Your task to perform on an android device: Search for "dell xps" on target, select the first entry, and add it to the cart. Image 0: 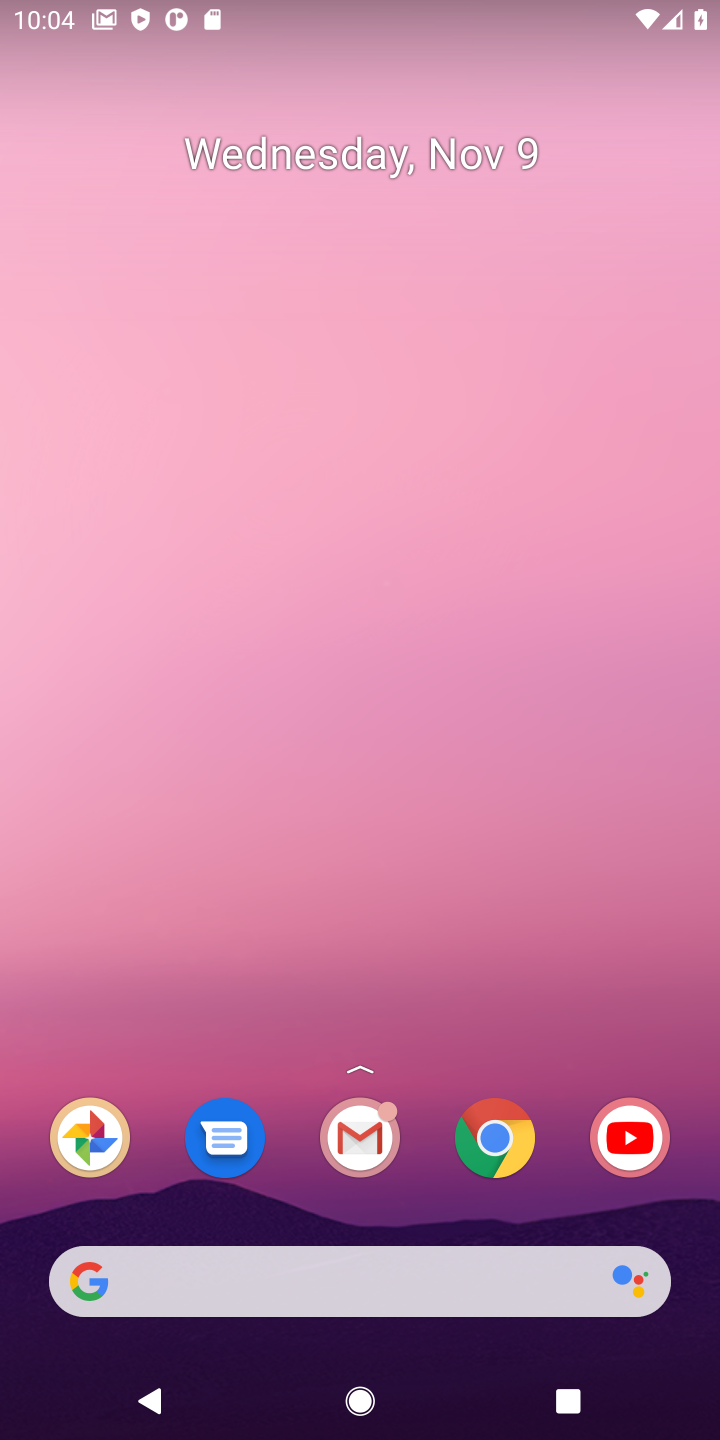
Step 0: press home button
Your task to perform on an android device: Search for "dell xps" on target, select the first entry, and add it to the cart. Image 1: 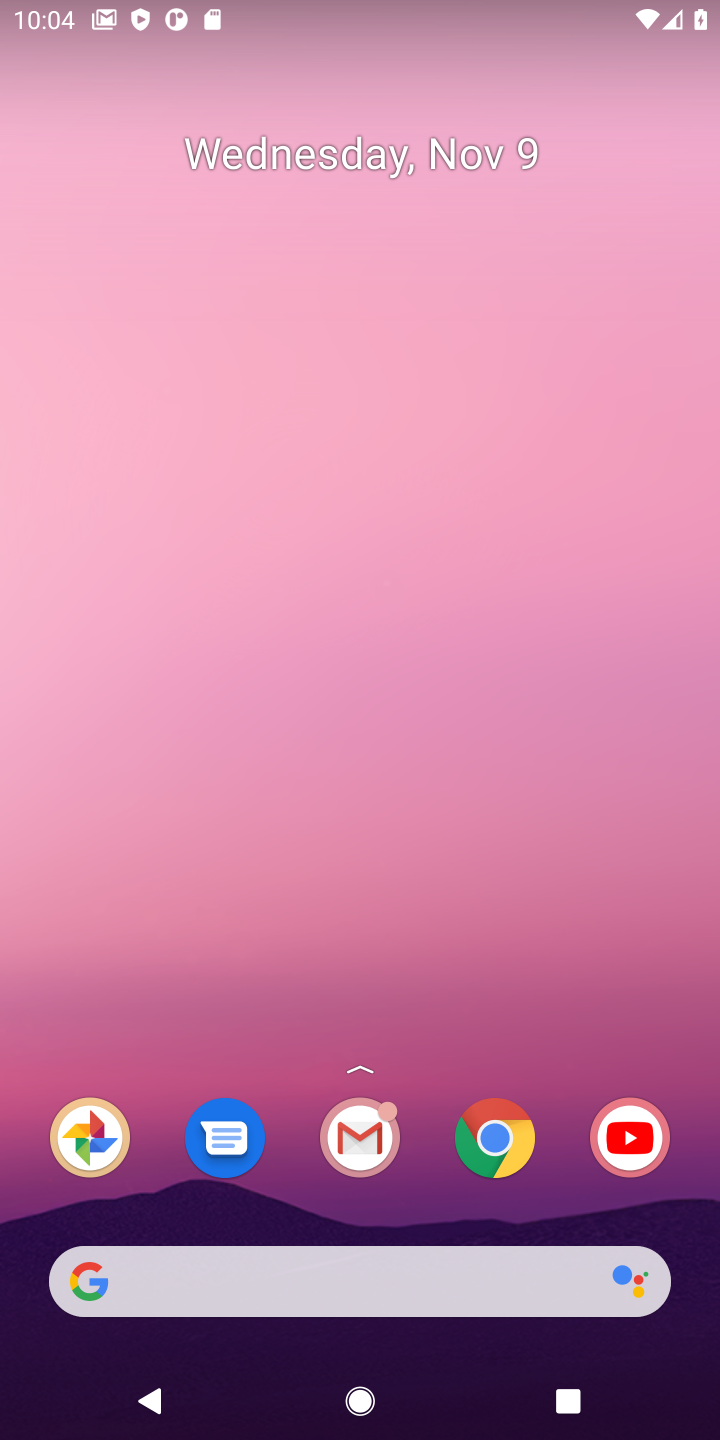
Step 1: click (372, 8)
Your task to perform on an android device: Search for "dell xps" on target, select the first entry, and add it to the cart. Image 2: 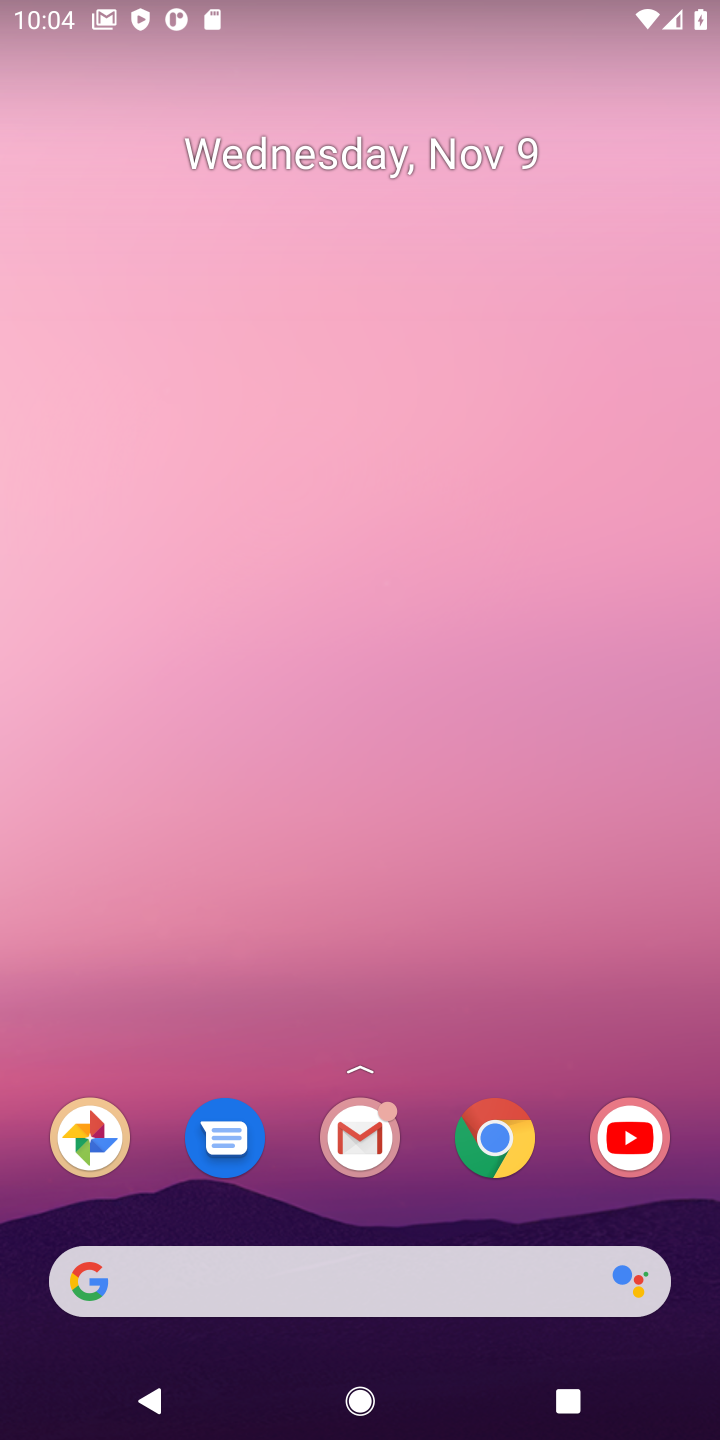
Step 2: drag from (286, 1193) to (262, 109)
Your task to perform on an android device: Search for "dell xps" on target, select the first entry, and add it to the cart. Image 3: 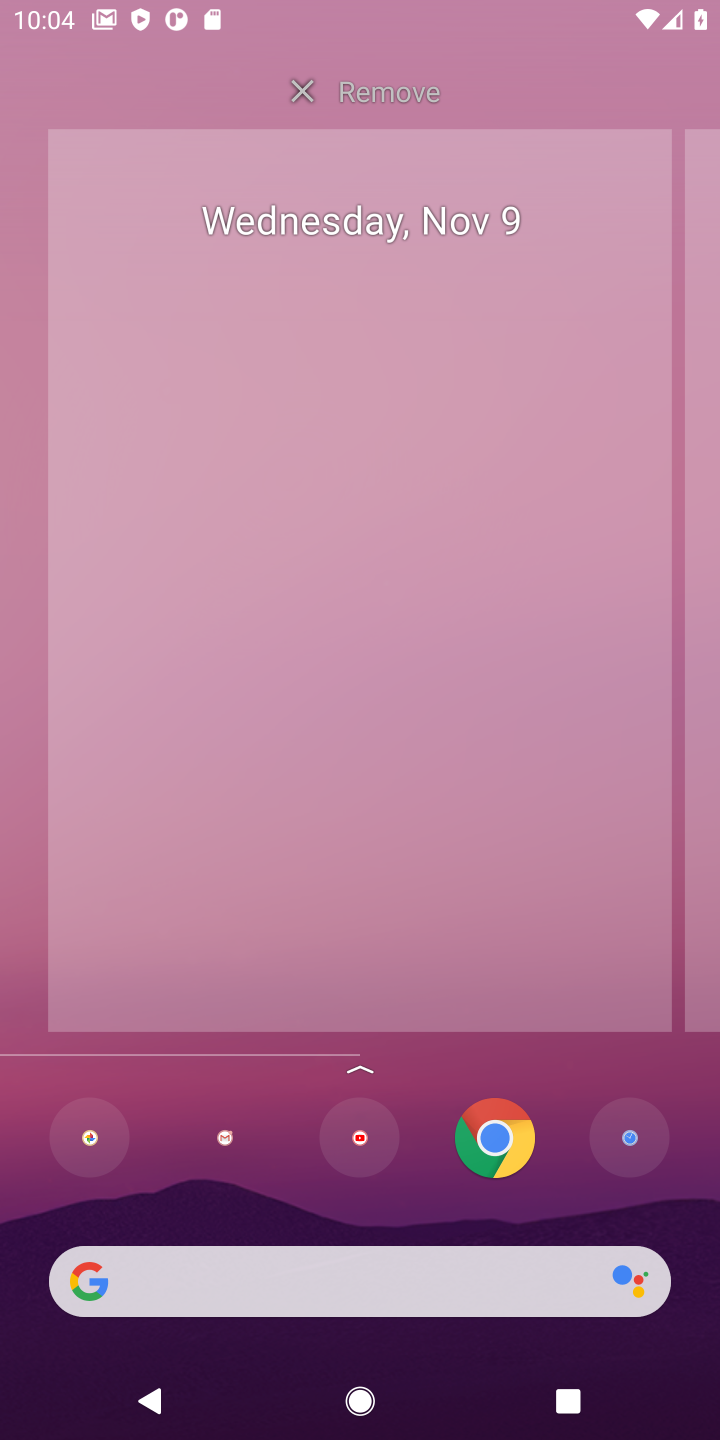
Step 3: click (578, 635)
Your task to perform on an android device: Search for "dell xps" on target, select the first entry, and add it to the cart. Image 4: 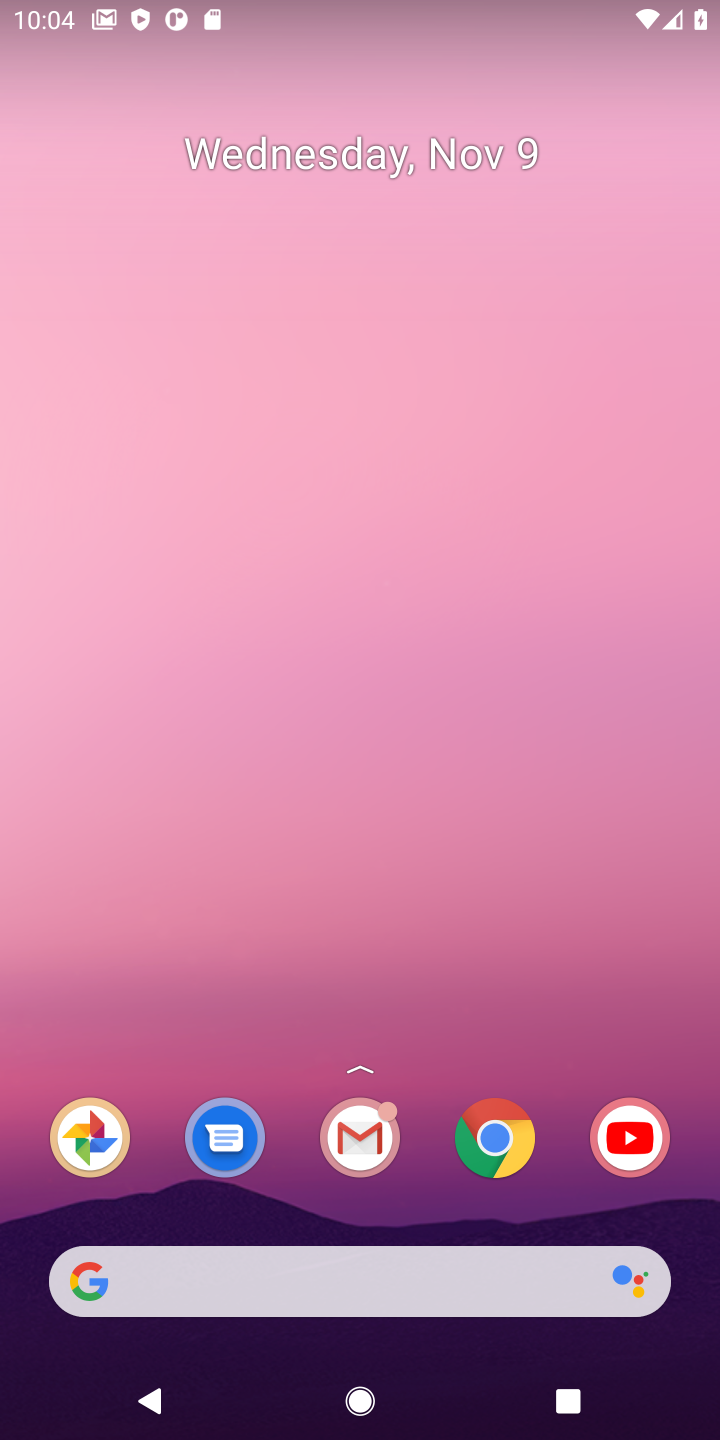
Step 4: drag from (292, 1184) to (297, 0)
Your task to perform on an android device: Search for "dell xps" on target, select the first entry, and add it to the cart. Image 5: 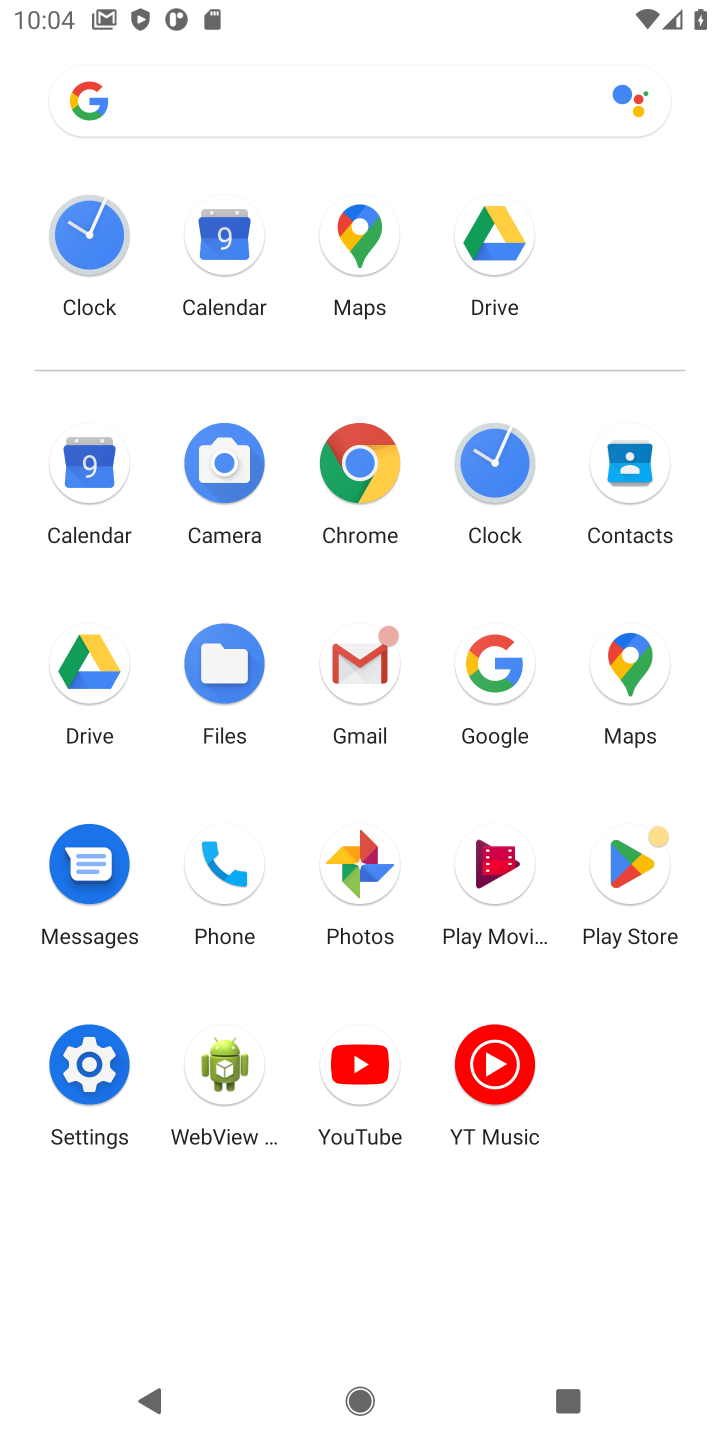
Step 5: click (377, 462)
Your task to perform on an android device: Search for "dell xps" on target, select the first entry, and add it to the cart. Image 6: 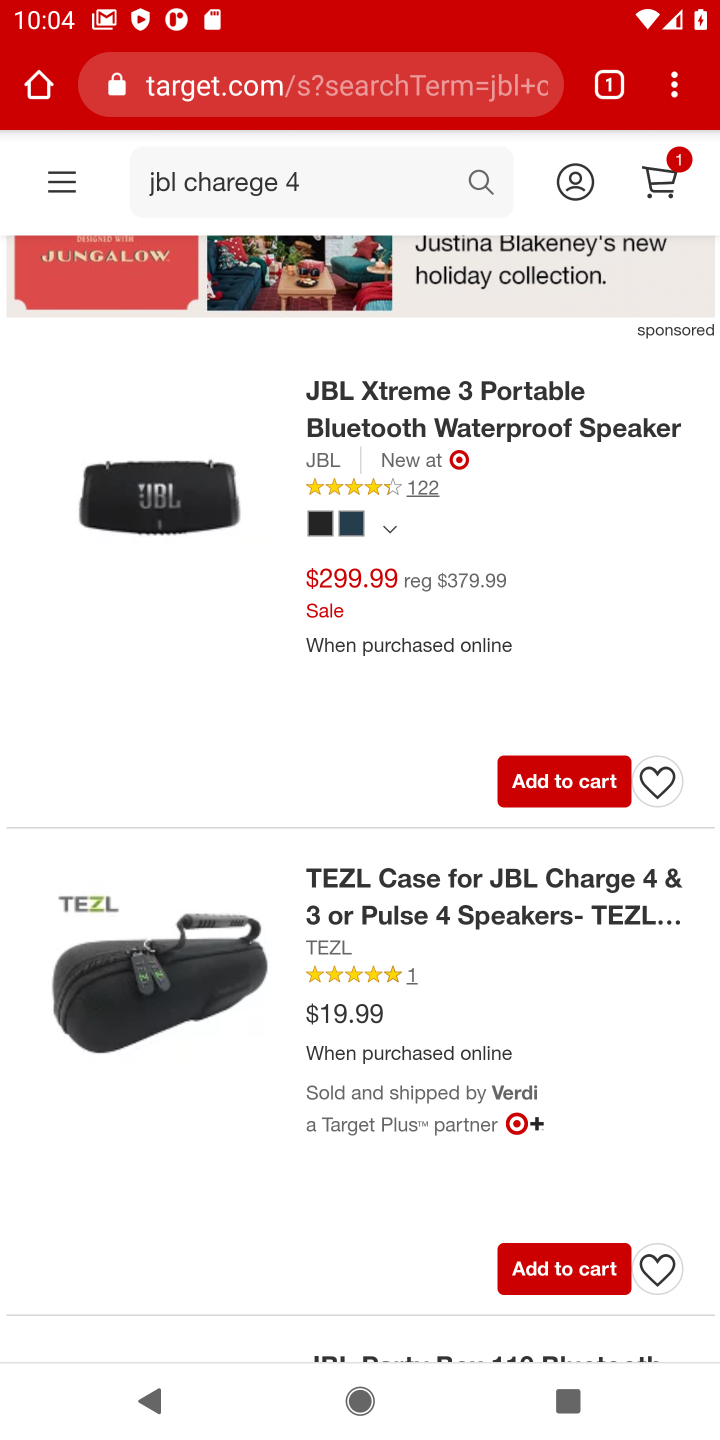
Step 6: click (346, 92)
Your task to perform on an android device: Search for "dell xps" on target, select the first entry, and add it to the cart. Image 7: 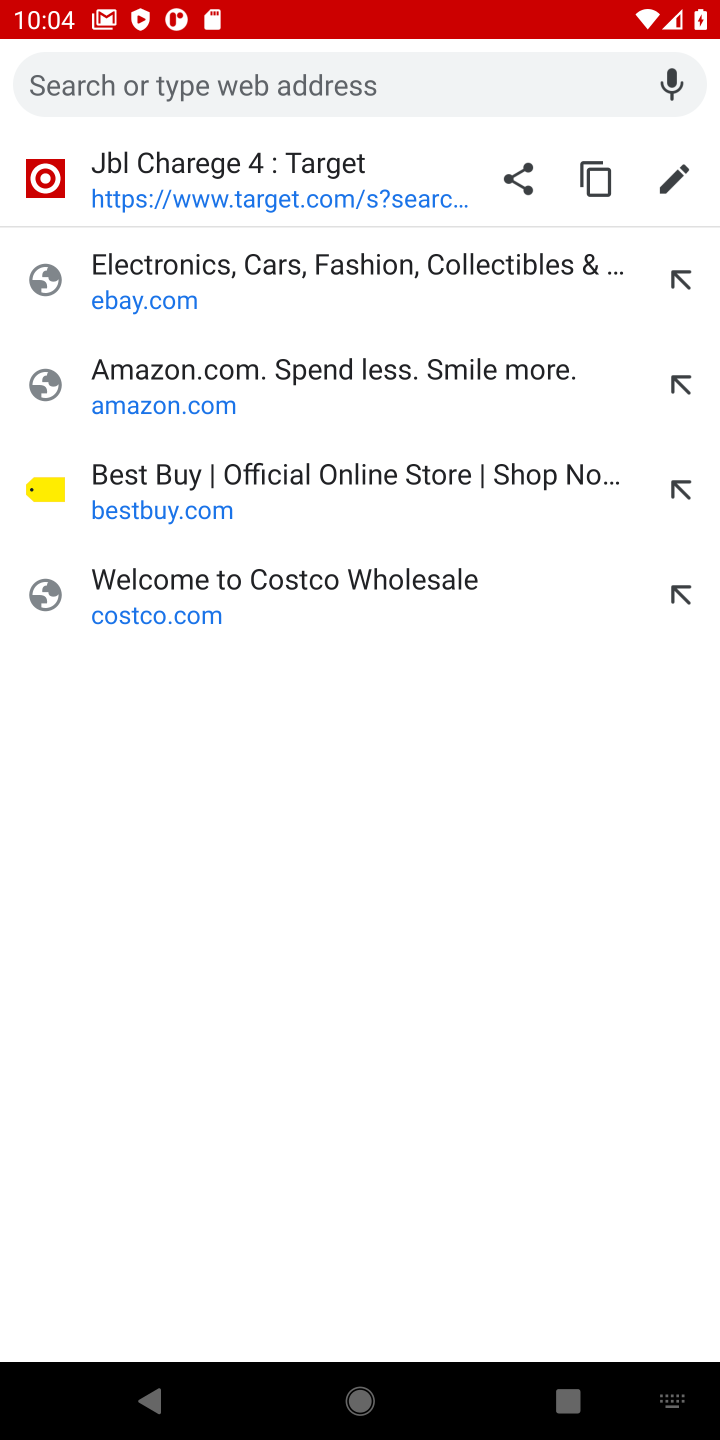
Step 7: type "target.com"
Your task to perform on an android device: Search for "dell xps" on target, select the first entry, and add it to the cart. Image 8: 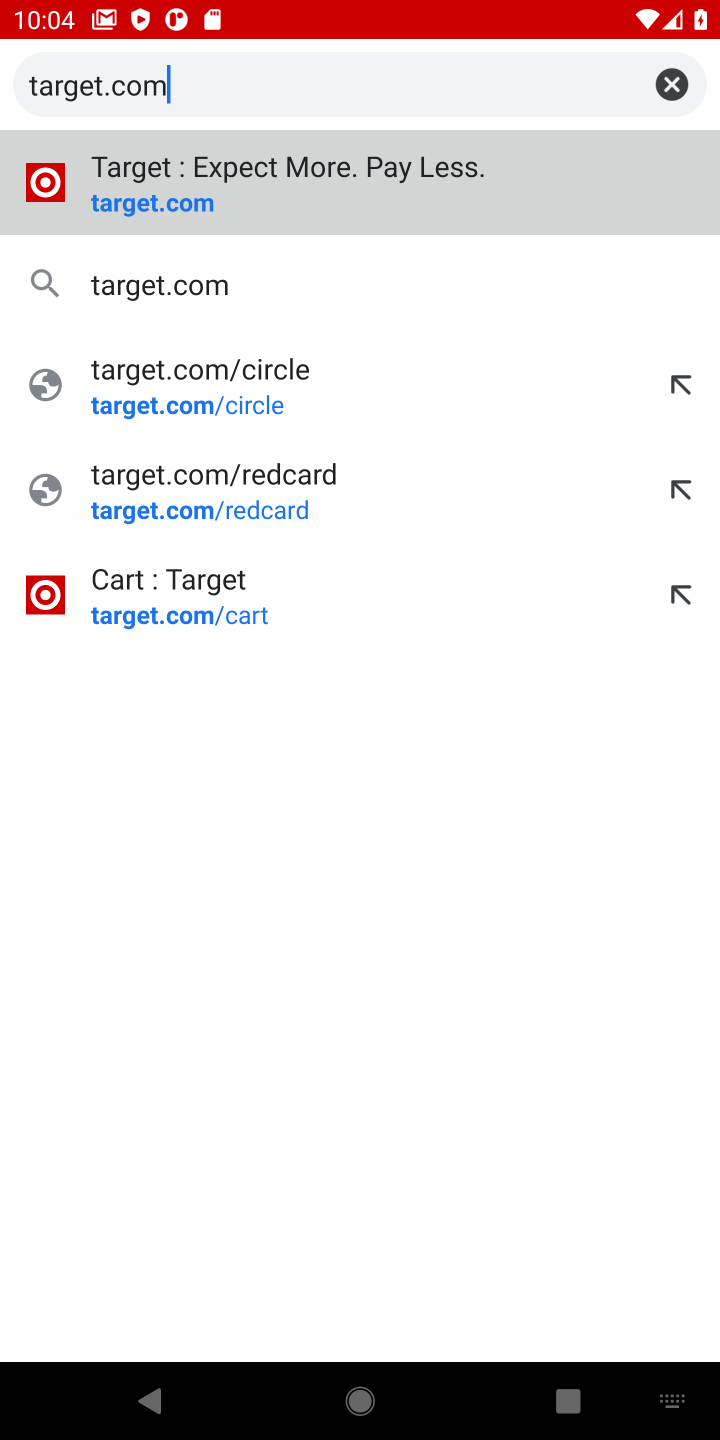
Step 8: press enter
Your task to perform on an android device: Search for "dell xps" on target, select the first entry, and add it to the cart. Image 9: 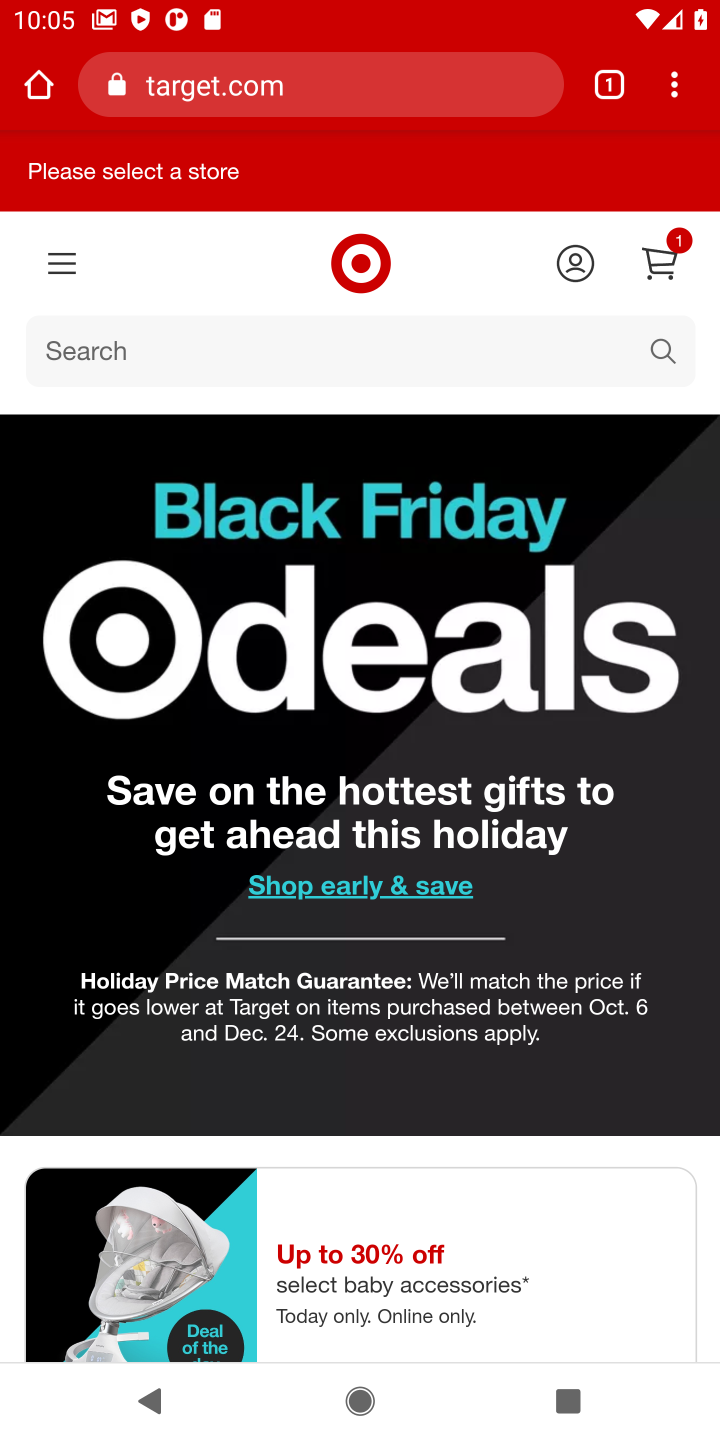
Step 9: click (280, 356)
Your task to perform on an android device: Search for "dell xps" on target, select the first entry, and add it to the cart. Image 10: 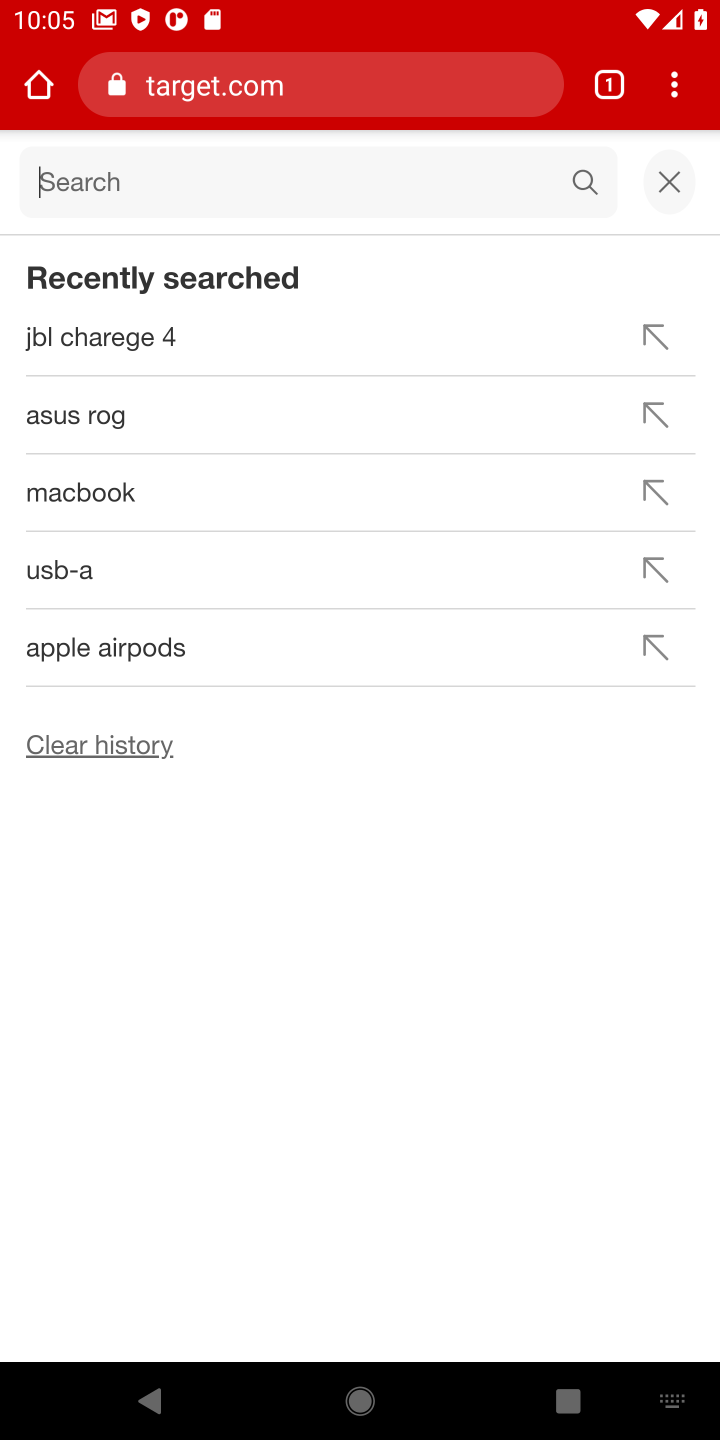
Step 10: type "de;; "
Your task to perform on an android device: Search for "dell xps" on target, select the first entry, and add it to the cart. Image 11: 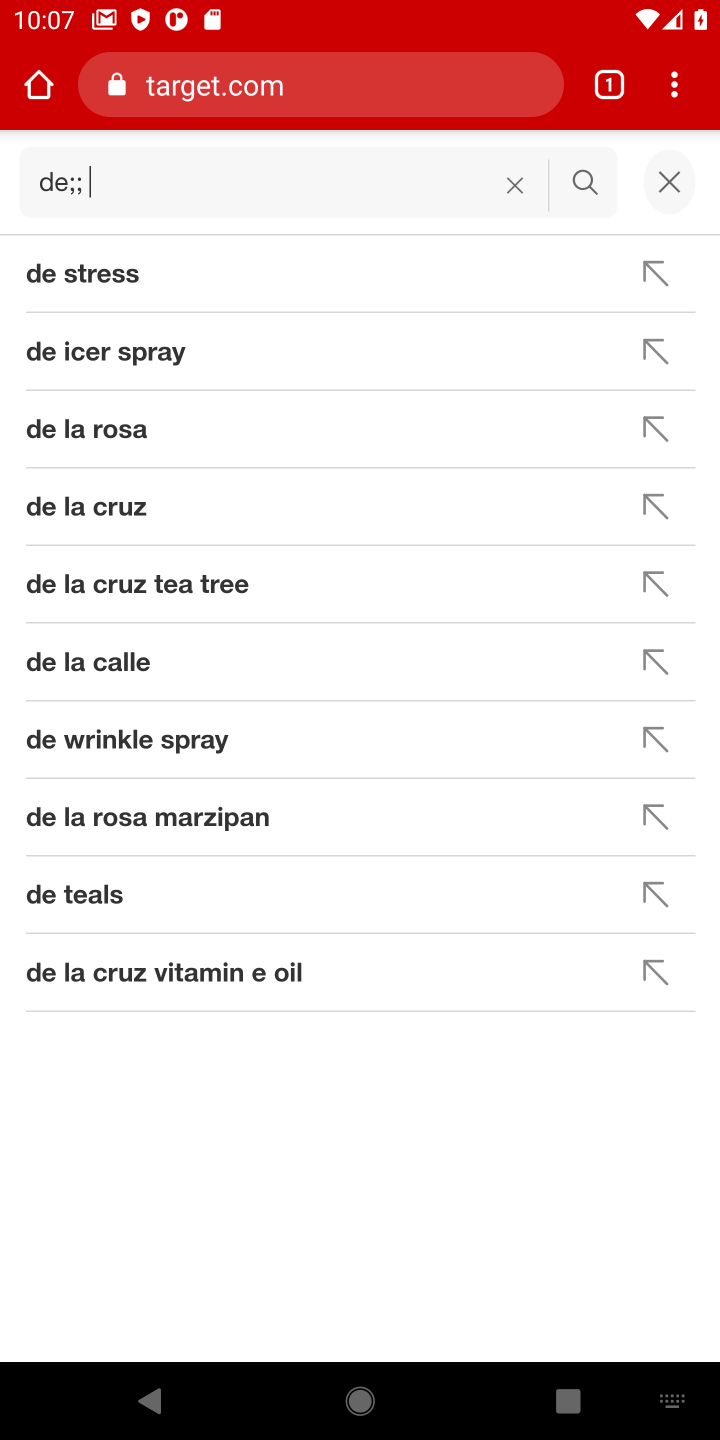
Step 11: click (515, 169)
Your task to perform on an android device: Search for "dell xps" on target, select the first entry, and add it to the cart. Image 12: 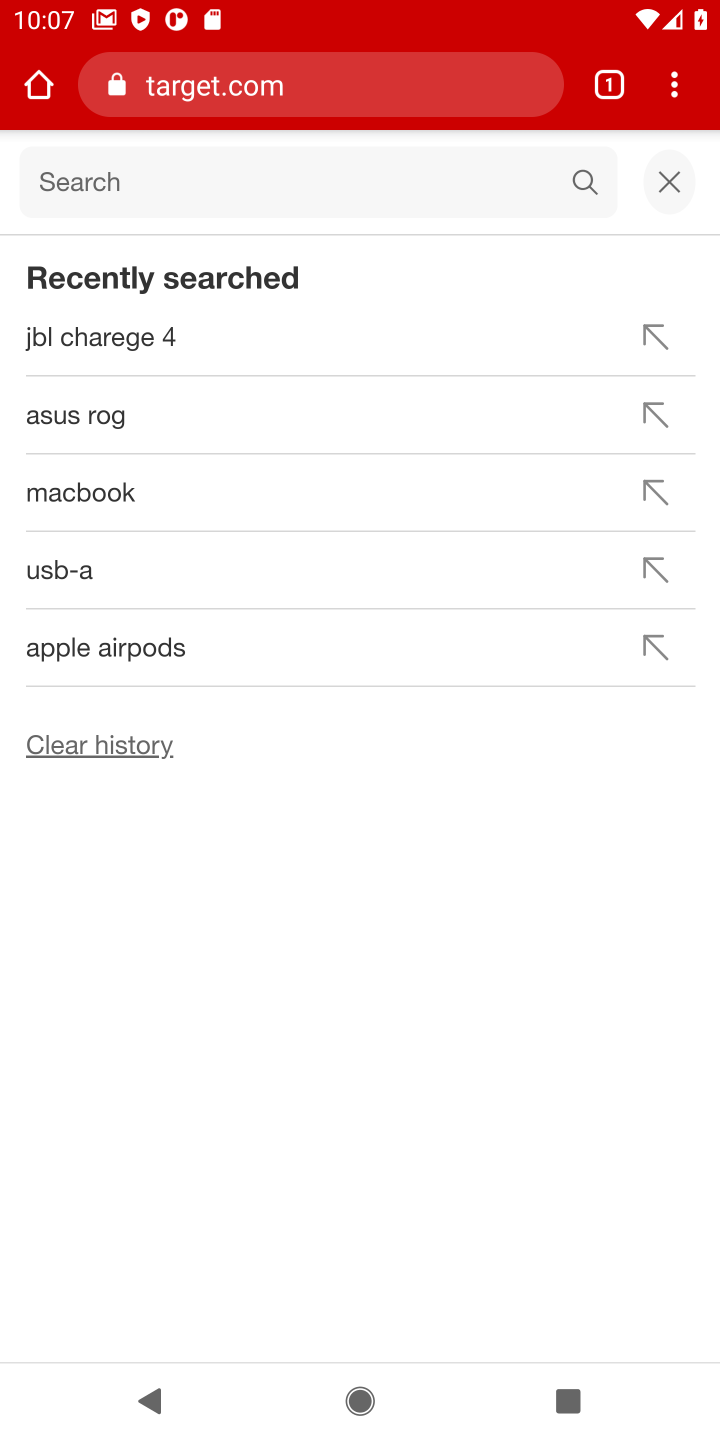
Step 12: click (186, 164)
Your task to perform on an android device: Search for "dell xps" on target, select the first entry, and add it to the cart. Image 13: 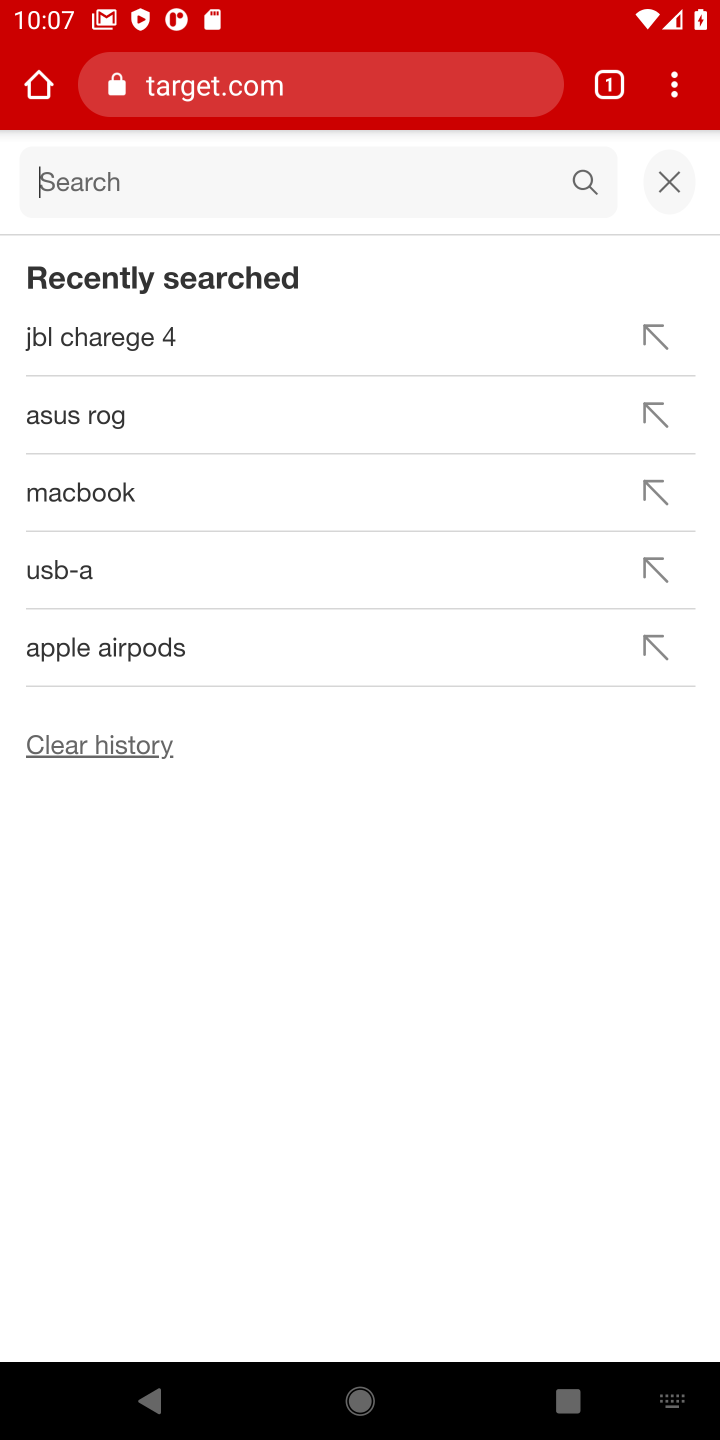
Step 13: type "dell xps"
Your task to perform on an android device: Search for "dell xps" on target, select the first entry, and add it to the cart. Image 14: 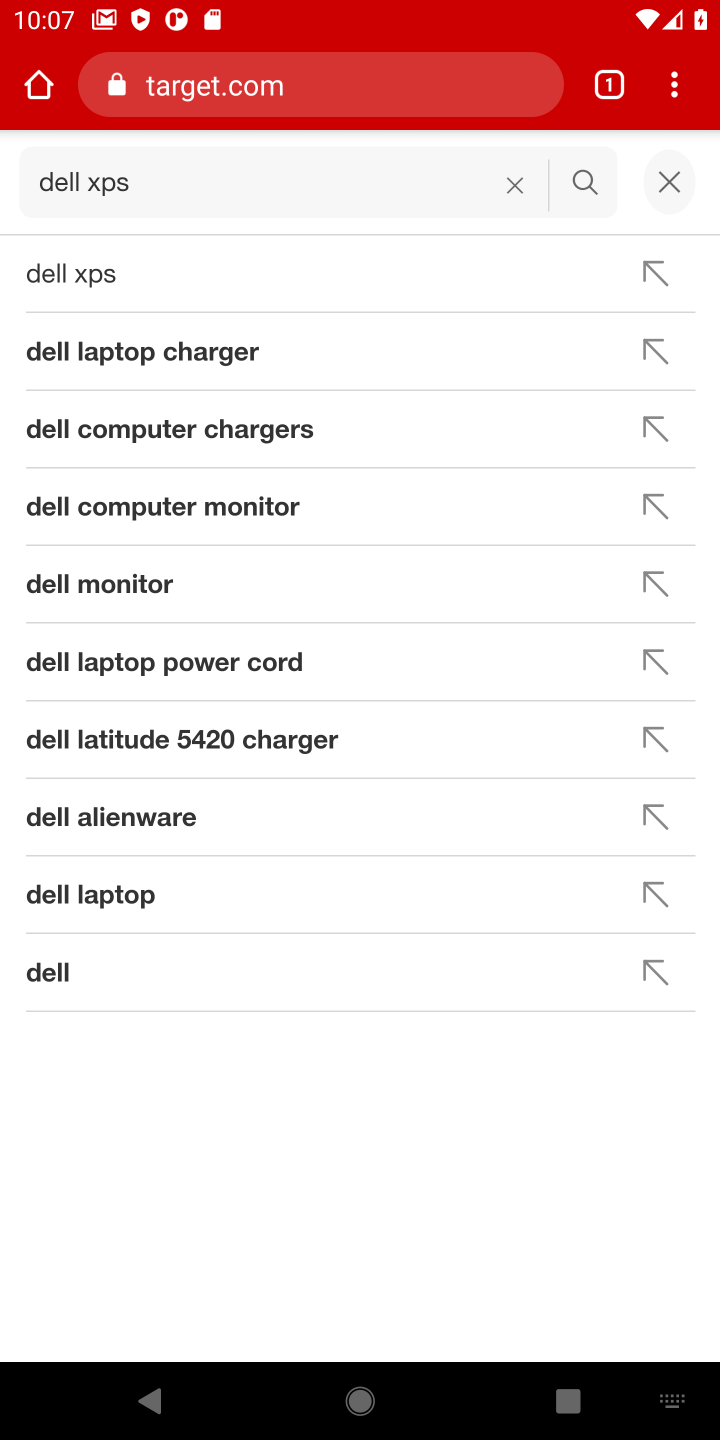
Step 14: press enter
Your task to perform on an android device: Search for "dell xps" on target, select the first entry, and add it to the cart. Image 15: 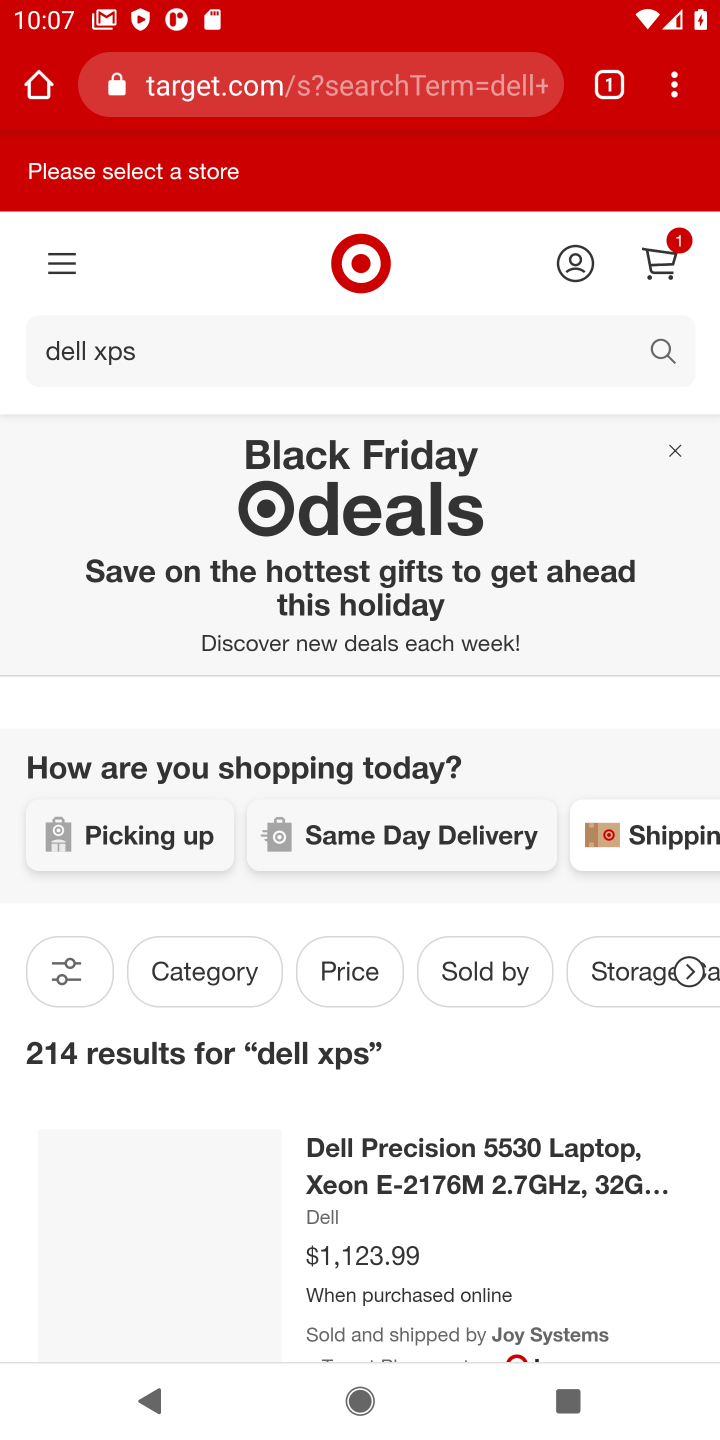
Step 15: task complete